Your task to perform on an android device: Go to Google Image 0: 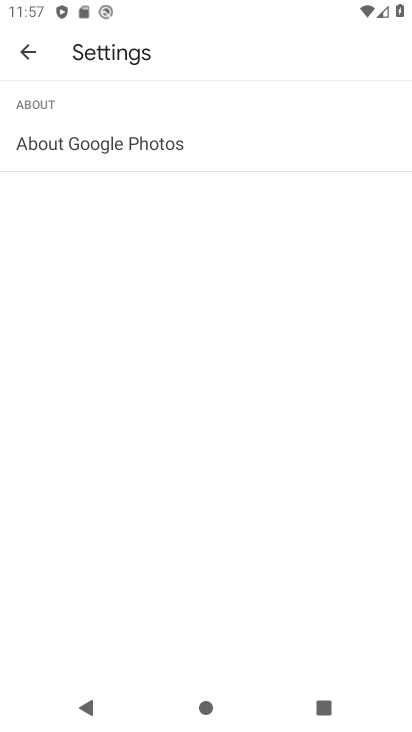
Step 0: press home button
Your task to perform on an android device: Go to Google Image 1: 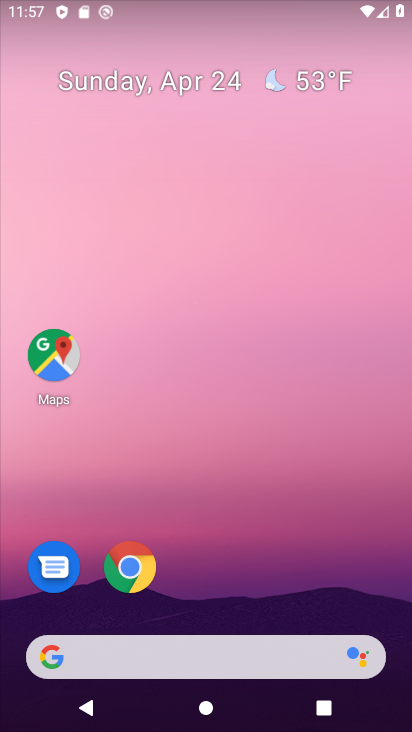
Step 1: drag from (201, 529) to (214, 139)
Your task to perform on an android device: Go to Google Image 2: 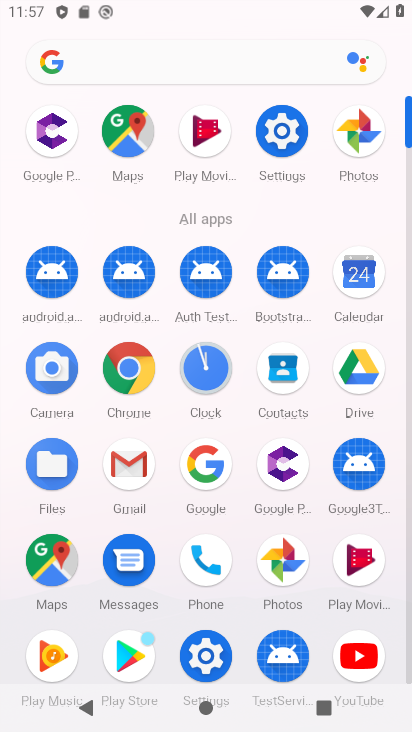
Step 2: click (208, 471)
Your task to perform on an android device: Go to Google Image 3: 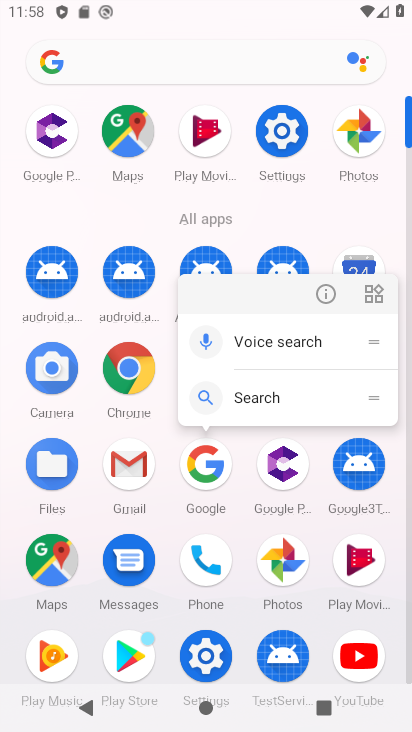
Step 3: click (210, 459)
Your task to perform on an android device: Go to Google Image 4: 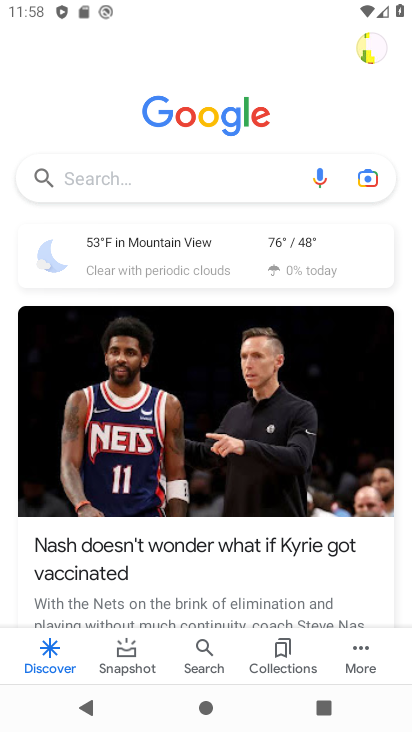
Step 4: task complete